Your task to perform on an android device: set the timer Image 0: 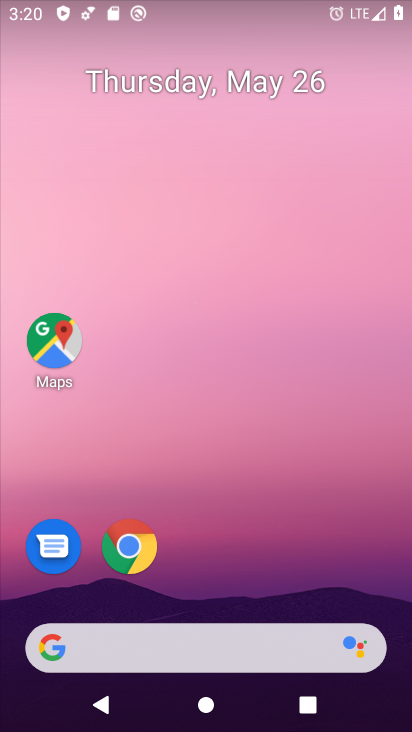
Step 0: drag from (226, 543) to (284, 74)
Your task to perform on an android device: set the timer Image 1: 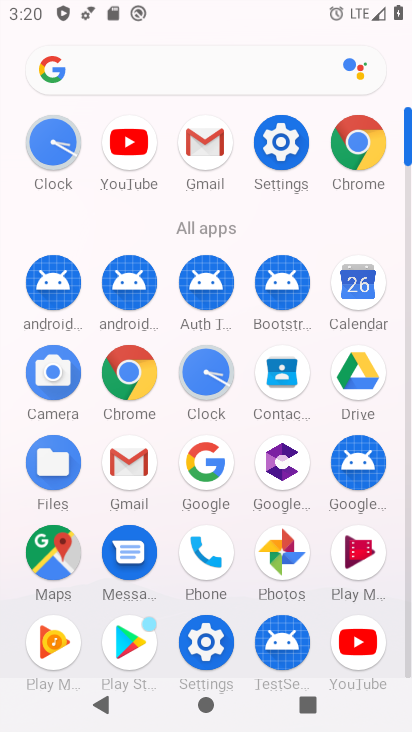
Step 1: click (219, 369)
Your task to perform on an android device: set the timer Image 2: 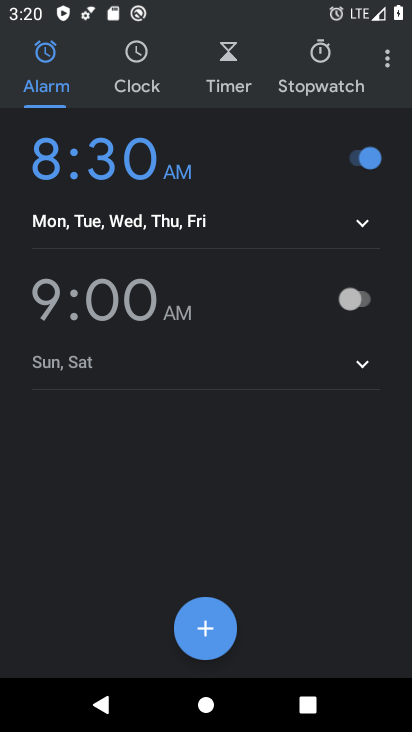
Step 2: click (231, 65)
Your task to perform on an android device: set the timer Image 3: 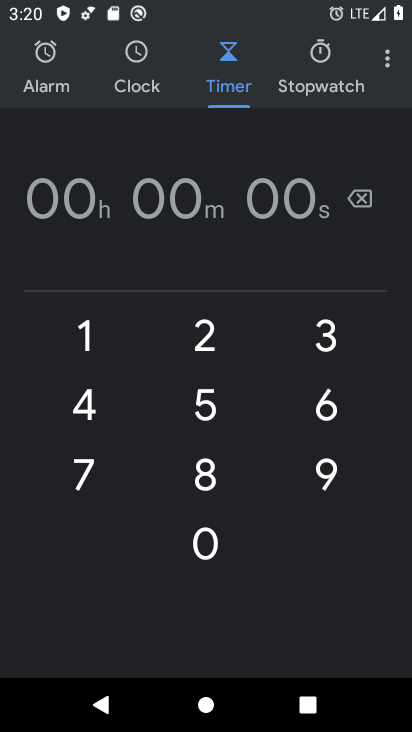
Step 3: click (217, 337)
Your task to perform on an android device: set the timer Image 4: 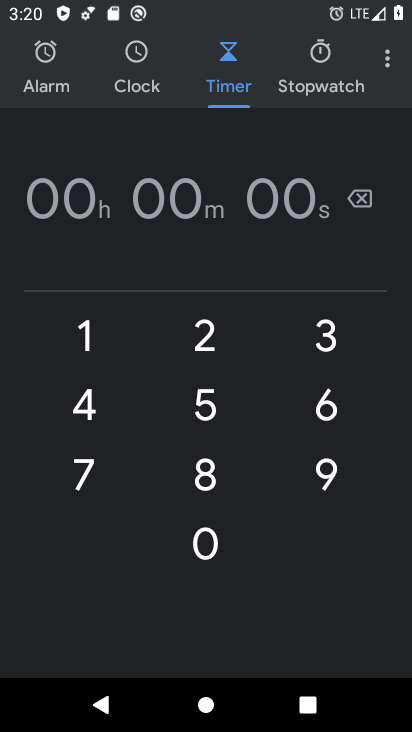
Step 4: click (332, 333)
Your task to perform on an android device: set the timer Image 5: 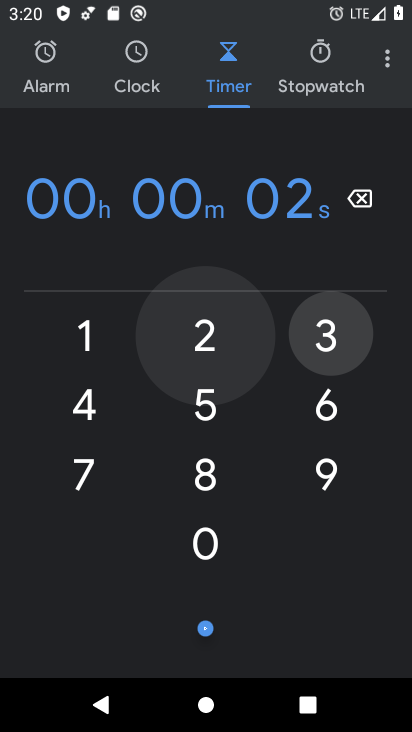
Step 5: click (196, 371)
Your task to perform on an android device: set the timer Image 6: 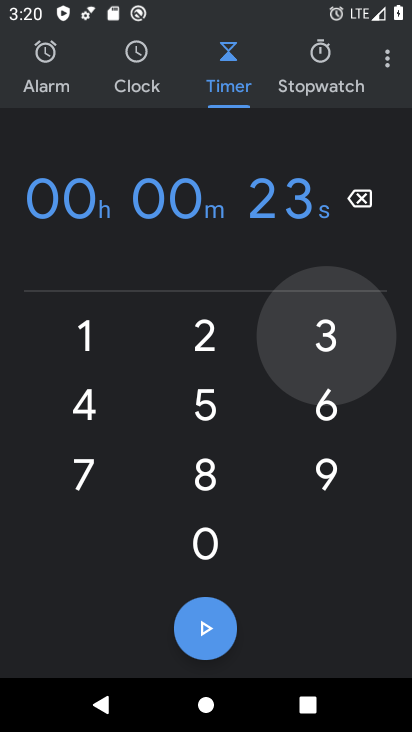
Step 6: click (300, 425)
Your task to perform on an android device: set the timer Image 7: 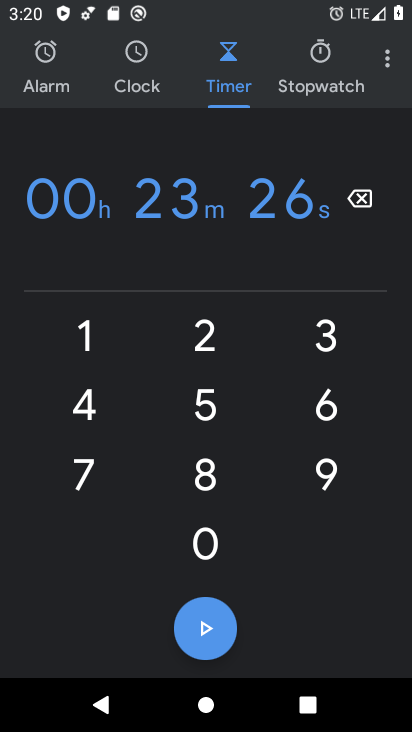
Step 7: task complete